Your task to perform on an android device: Open network settings Image 0: 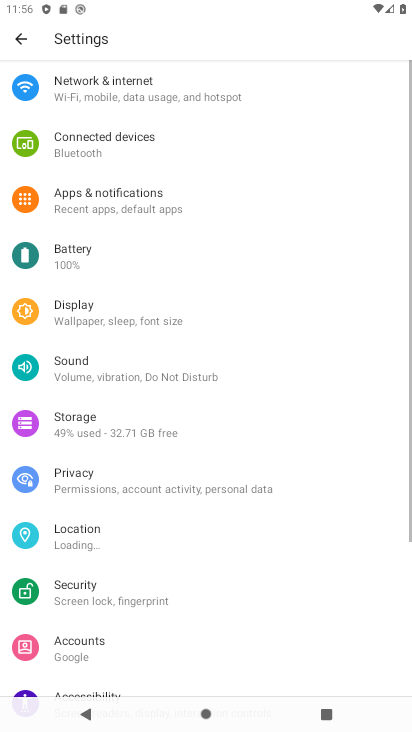
Step 0: press home button
Your task to perform on an android device: Open network settings Image 1: 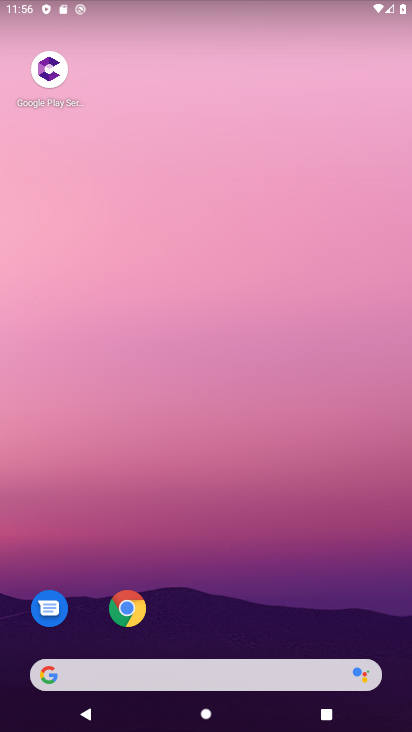
Step 1: drag from (142, 670) to (291, 114)
Your task to perform on an android device: Open network settings Image 2: 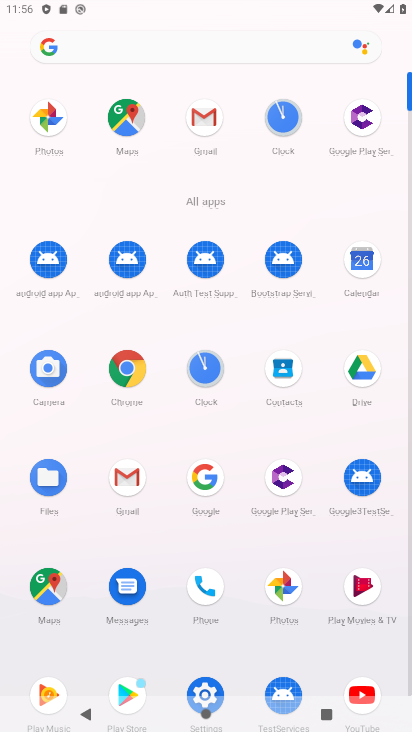
Step 2: click (209, 691)
Your task to perform on an android device: Open network settings Image 3: 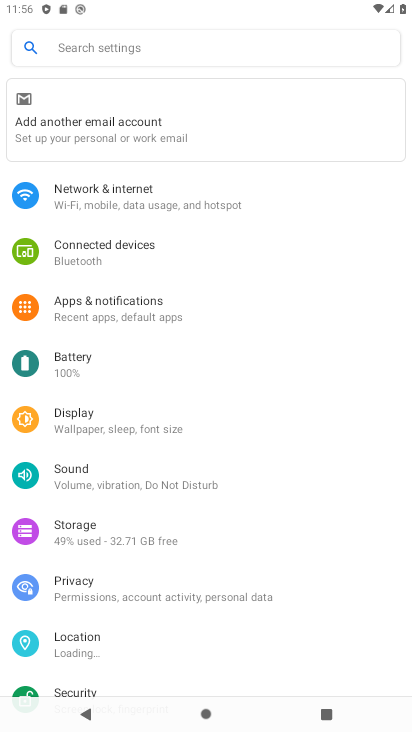
Step 3: click (119, 201)
Your task to perform on an android device: Open network settings Image 4: 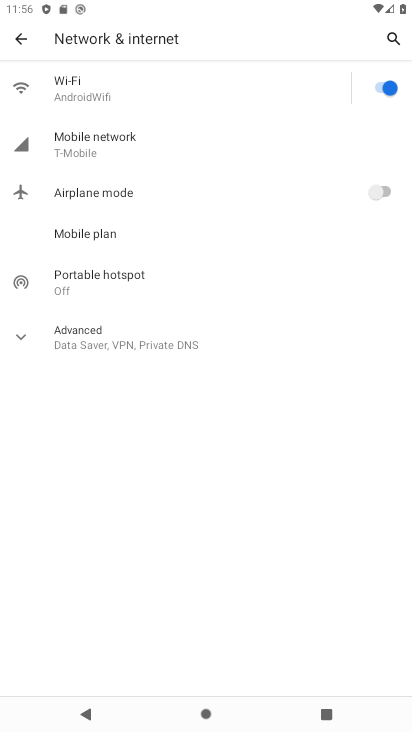
Step 4: click (91, 86)
Your task to perform on an android device: Open network settings Image 5: 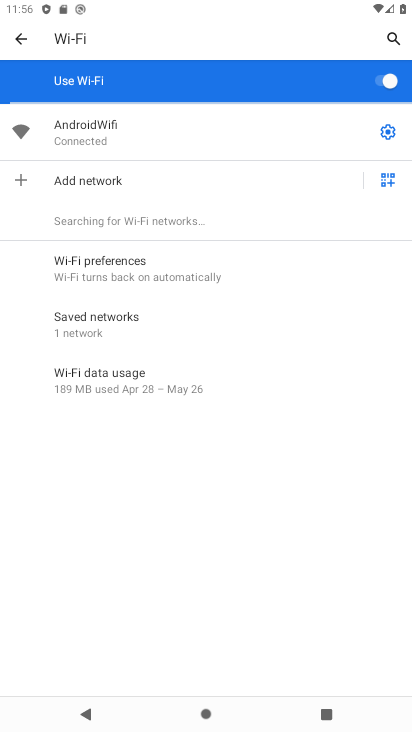
Step 5: task complete